Your task to perform on an android device: Open calendar and show me the third week of next month Image 0: 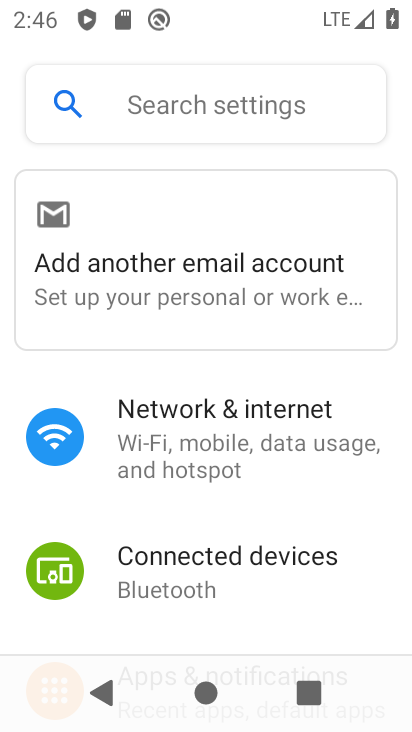
Step 0: drag from (308, 488) to (398, 257)
Your task to perform on an android device: Open calendar and show me the third week of next month Image 1: 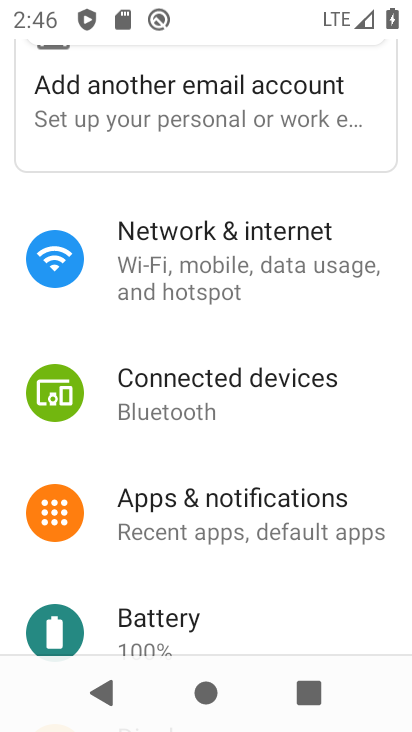
Step 1: press home button
Your task to perform on an android device: Open calendar and show me the third week of next month Image 2: 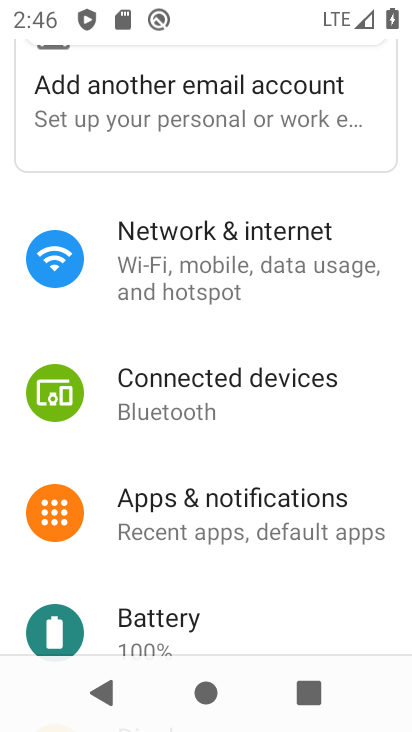
Step 2: click (409, 396)
Your task to perform on an android device: Open calendar and show me the third week of next month Image 3: 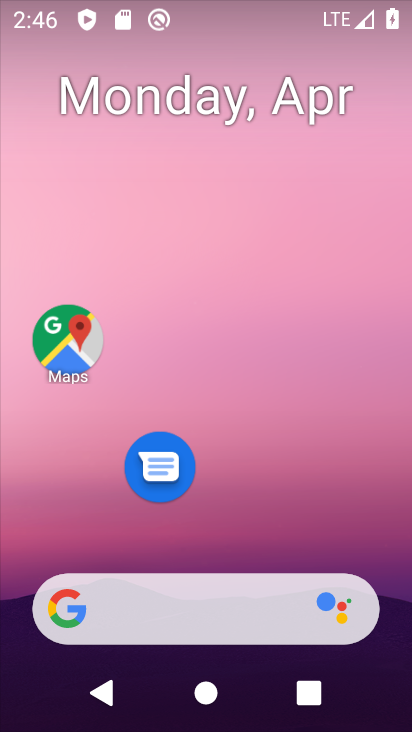
Step 3: drag from (254, 452) to (245, 32)
Your task to perform on an android device: Open calendar and show me the third week of next month Image 4: 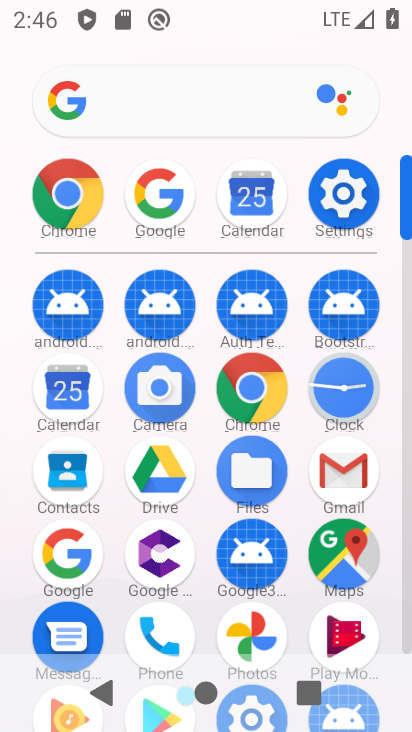
Step 4: click (84, 376)
Your task to perform on an android device: Open calendar and show me the third week of next month Image 5: 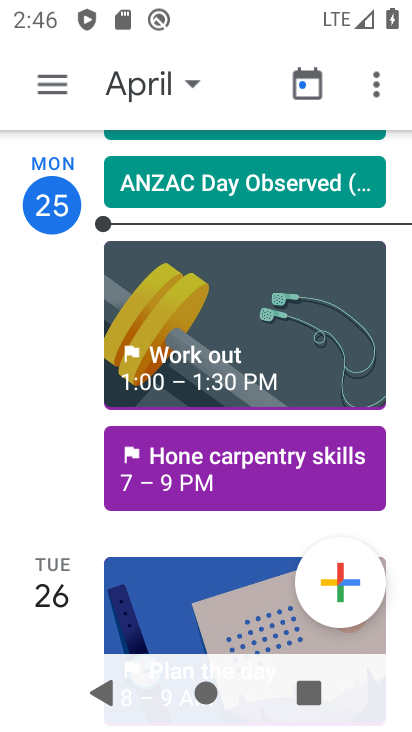
Step 5: click (118, 76)
Your task to perform on an android device: Open calendar and show me the third week of next month Image 6: 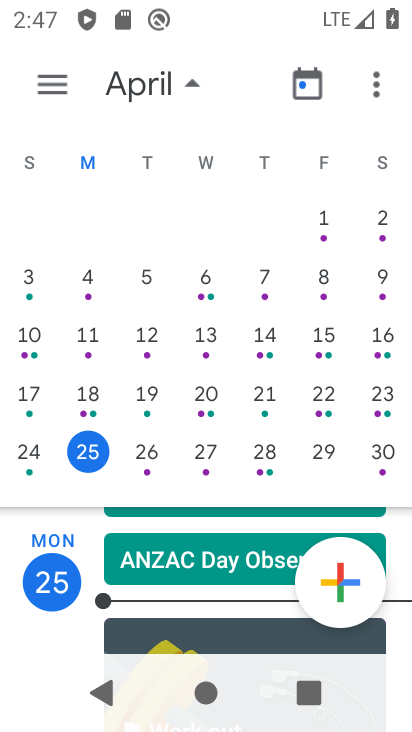
Step 6: drag from (363, 303) to (110, 309)
Your task to perform on an android device: Open calendar and show me the third week of next month Image 7: 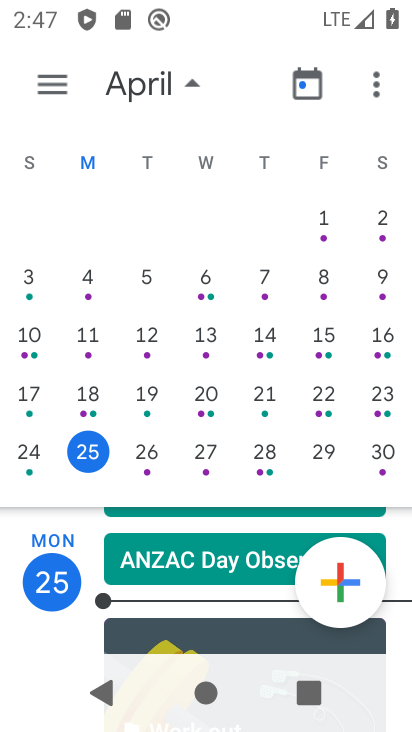
Step 7: drag from (352, 298) to (4, 359)
Your task to perform on an android device: Open calendar and show me the third week of next month Image 8: 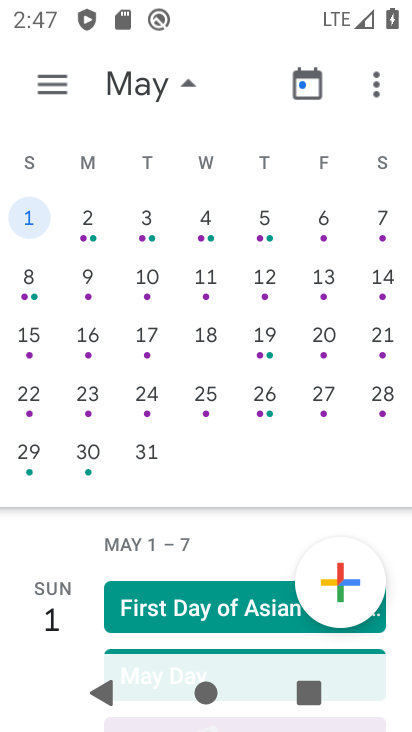
Step 8: click (48, 342)
Your task to perform on an android device: Open calendar and show me the third week of next month Image 9: 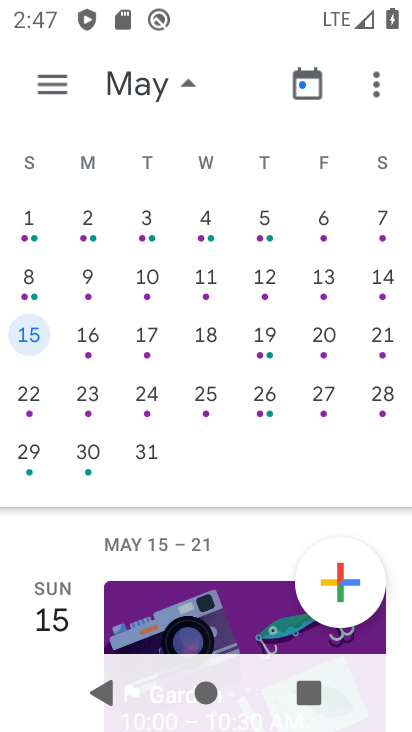
Step 9: task complete